Your task to perform on an android device: turn on translation in the chrome app Image 0: 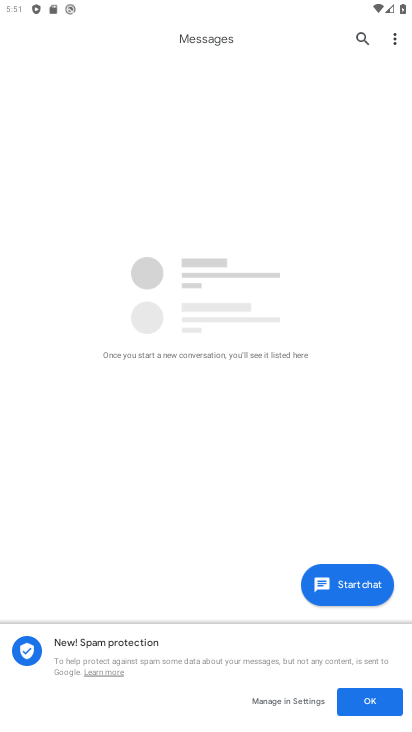
Step 0: press back button
Your task to perform on an android device: turn on translation in the chrome app Image 1: 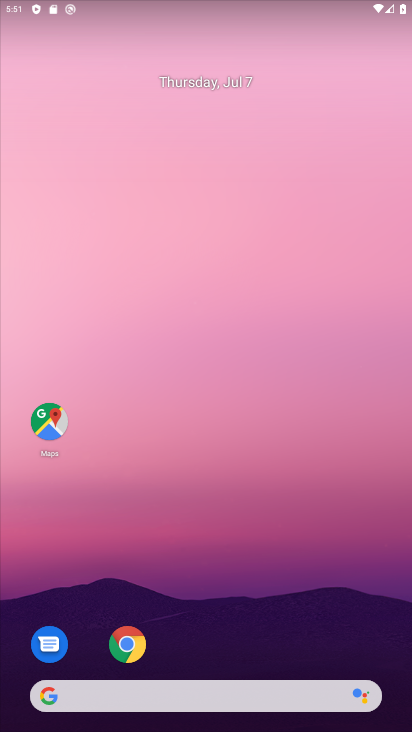
Step 1: press home button
Your task to perform on an android device: turn on translation in the chrome app Image 2: 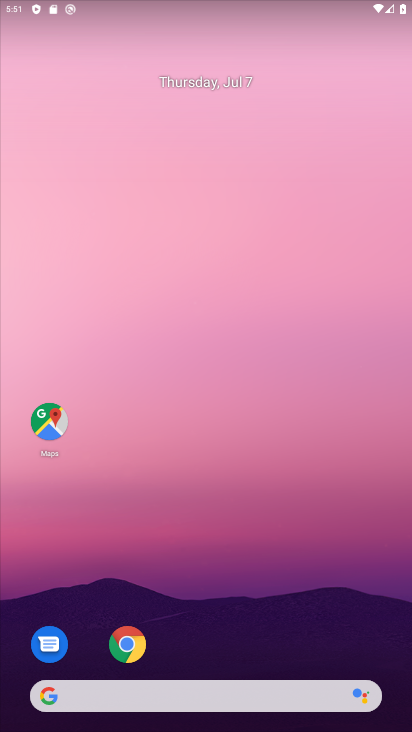
Step 2: drag from (197, 569) to (253, 135)
Your task to perform on an android device: turn on translation in the chrome app Image 3: 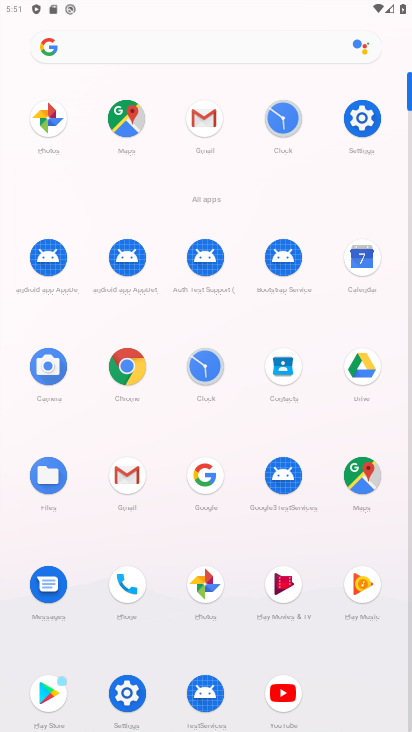
Step 3: click (188, 112)
Your task to perform on an android device: turn on translation in the chrome app Image 4: 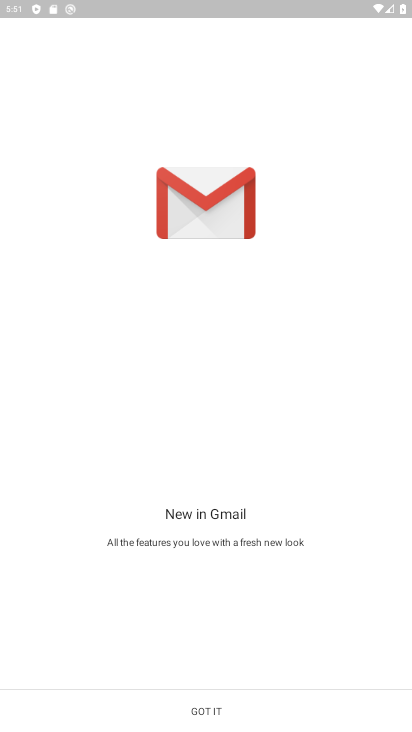
Step 4: press home button
Your task to perform on an android device: turn on translation in the chrome app Image 5: 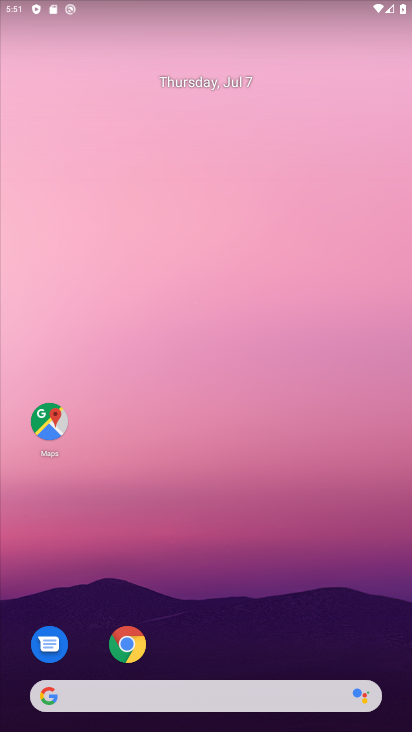
Step 5: click (109, 663)
Your task to perform on an android device: turn on translation in the chrome app Image 6: 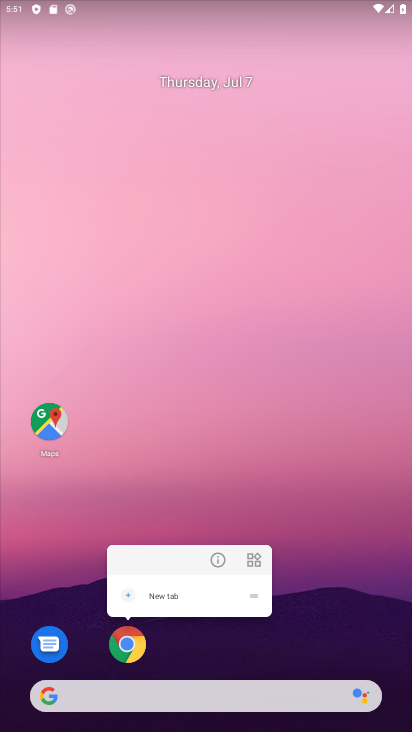
Step 6: click (109, 663)
Your task to perform on an android device: turn on translation in the chrome app Image 7: 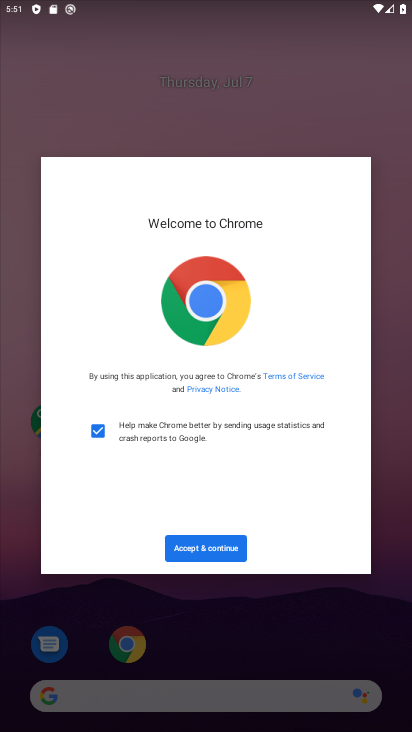
Step 7: click (223, 547)
Your task to perform on an android device: turn on translation in the chrome app Image 8: 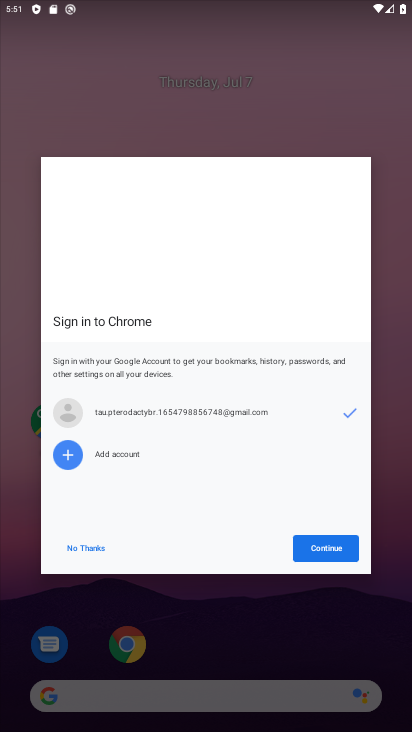
Step 8: click (323, 557)
Your task to perform on an android device: turn on translation in the chrome app Image 9: 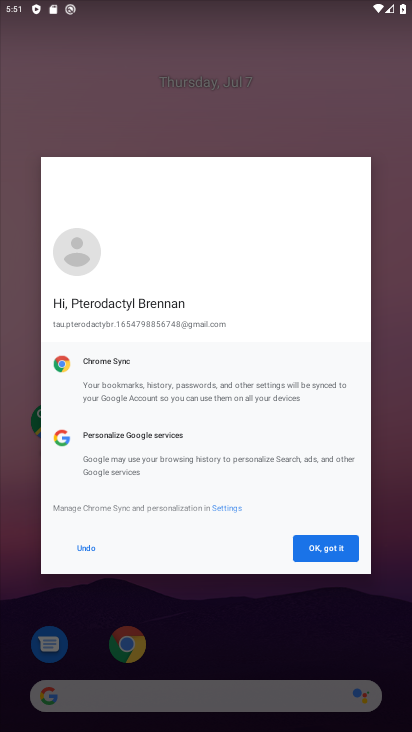
Step 9: click (328, 546)
Your task to perform on an android device: turn on translation in the chrome app Image 10: 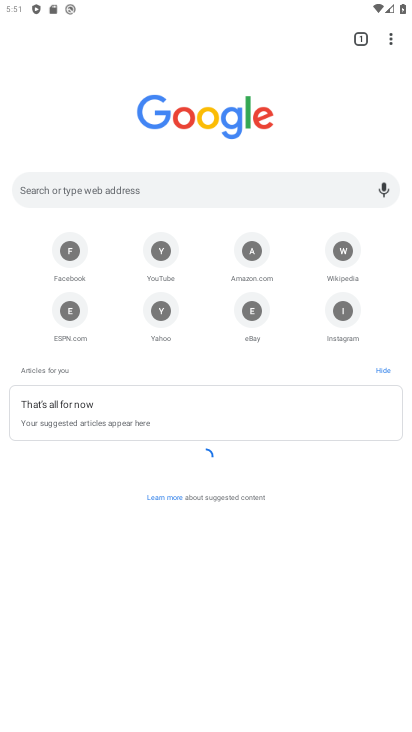
Step 10: click (386, 40)
Your task to perform on an android device: turn on translation in the chrome app Image 11: 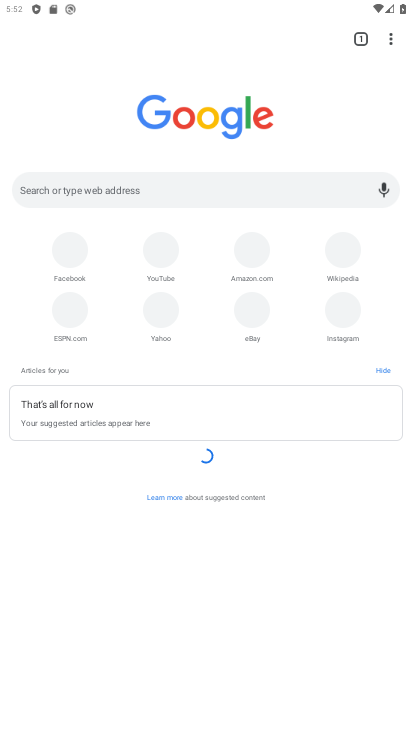
Step 11: drag from (386, 40) to (233, 319)
Your task to perform on an android device: turn on translation in the chrome app Image 12: 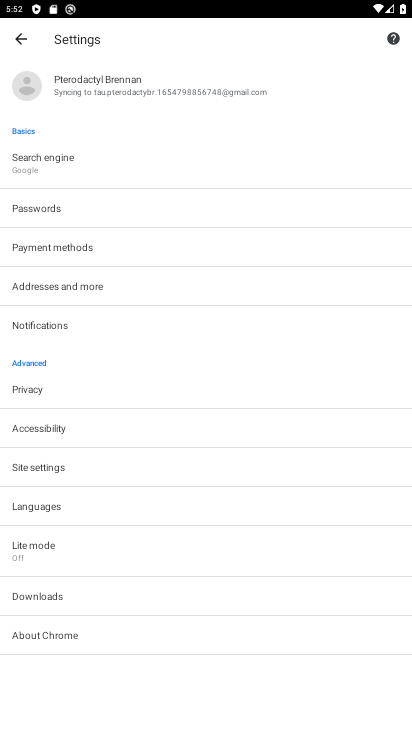
Step 12: click (43, 503)
Your task to perform on an android device: turn on translation in the chrome app Image 13: 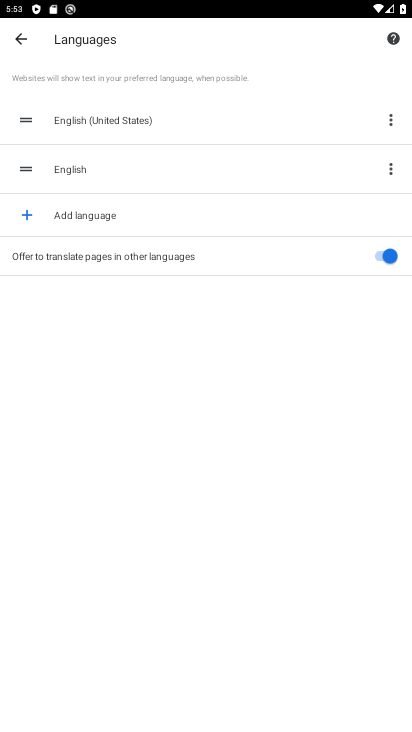
Step 13: task complete